Your task to perform on an android device: What's the weather? Image 0: 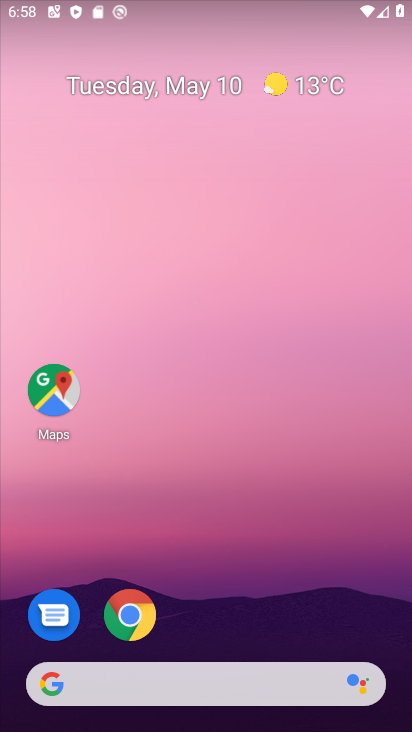
Step 0: drag from (240, 596) to (283, 257)
Your task to perform on an android device: What's the weather? Image 1: 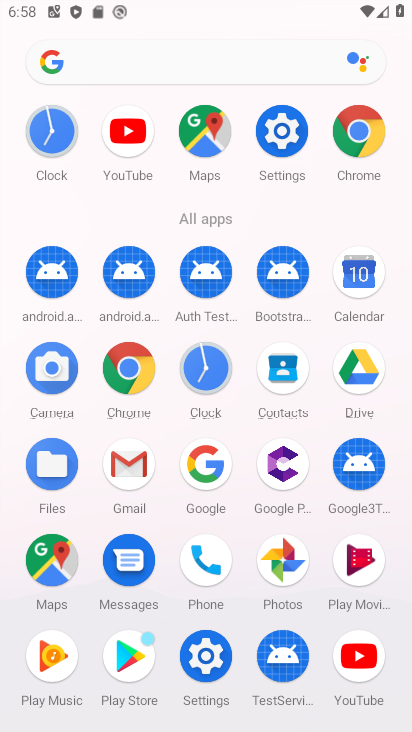
Step 1: press home button
Your task to perform on an android device: What's the weather? Image 2: 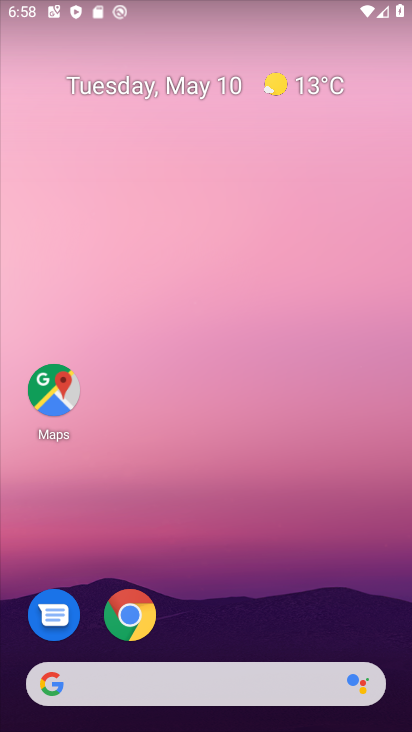
Step 2: click (306, 85)
Your task to perform on an android device: What's the weather? Image 3: 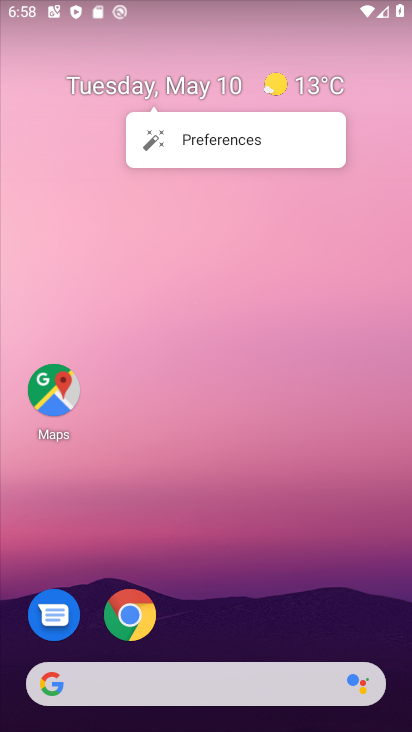
Step 3: click (307, 83)
Your task to perform on an android device: What's the weather? Image 4: 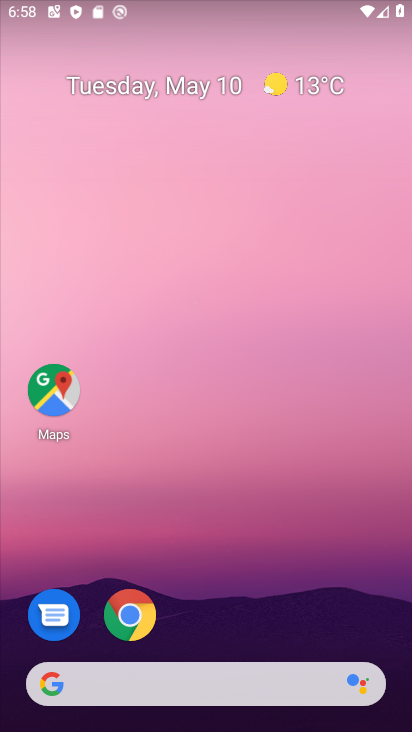
Step 4: click (307, 83)
Your task to perform on an android device: What's the weather? Image 5: 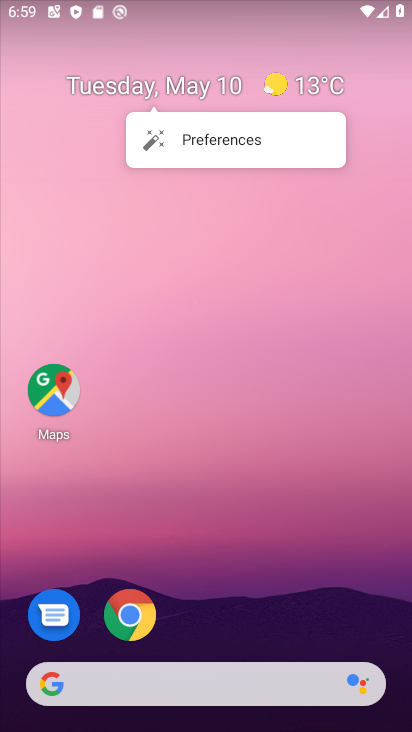
Step 5: click (305, 82)
Your task to perform on an android device: What's the weather? Image 6: 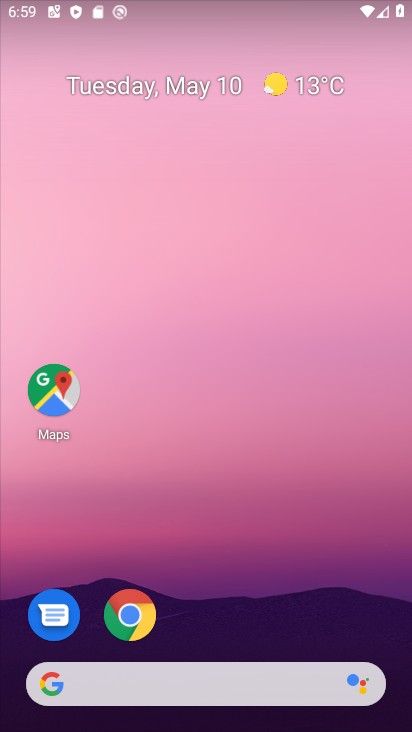
Step 6: click (256, 89)
Your task to perform on an android device: What's the weather? Image 7: 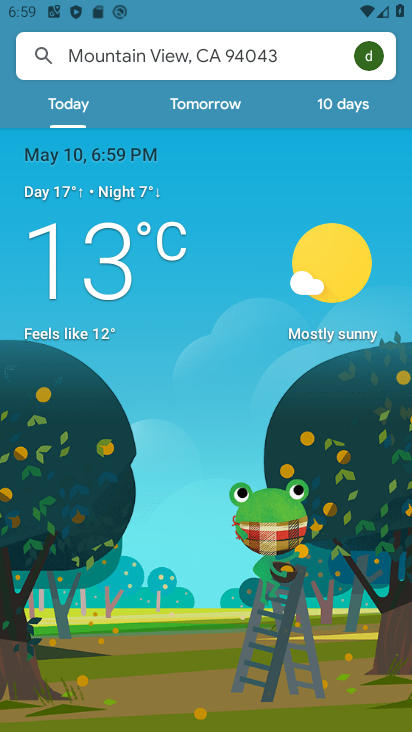
Step 7: task complete